Your task to perform on an android device: Open display settings Image 0: 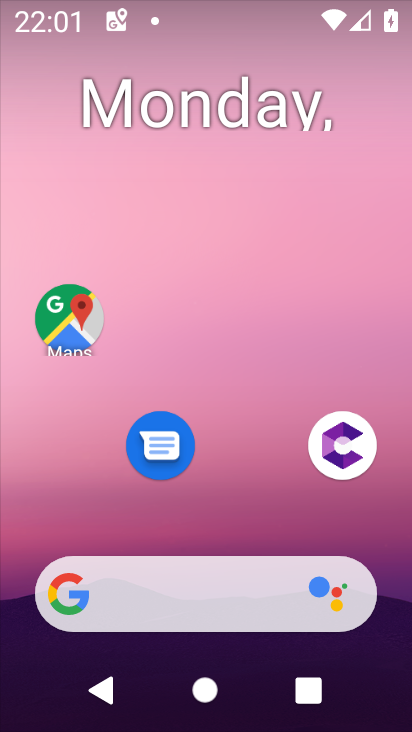
Step 0: drag from (256, 479) to (252, 79)
Your task to perform on an android device: Open display settings Image 1: 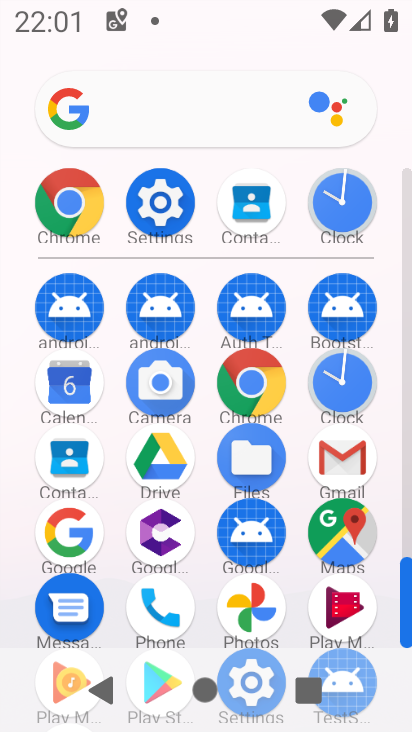
Step 1: click (156, 196)
Your task to perform on an android device: Open display settings Image 2: 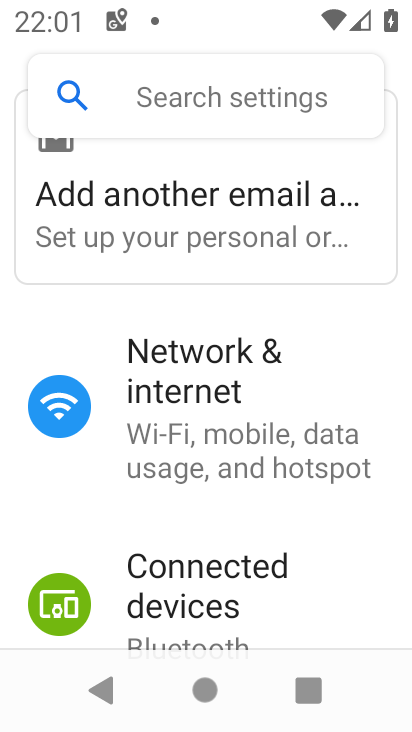
Step 2: drag from (59, 526) to (119, 43)
Your task to perform on an android device: Open display settings Image 3: 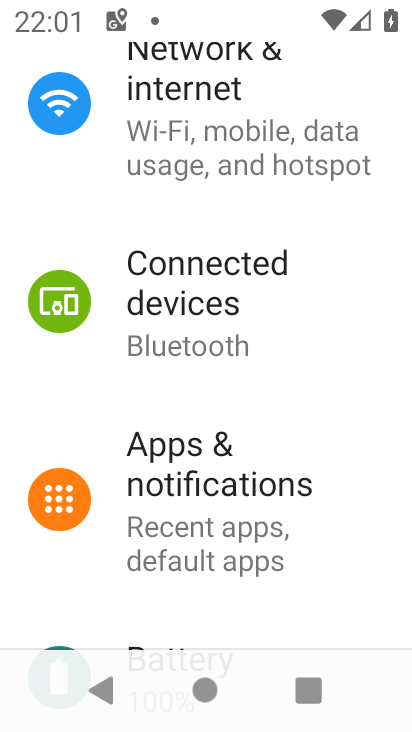
Step 3: drag from (92, 568) to (134, 163)
Your task to perform on an android device: Open display settings Image 4: 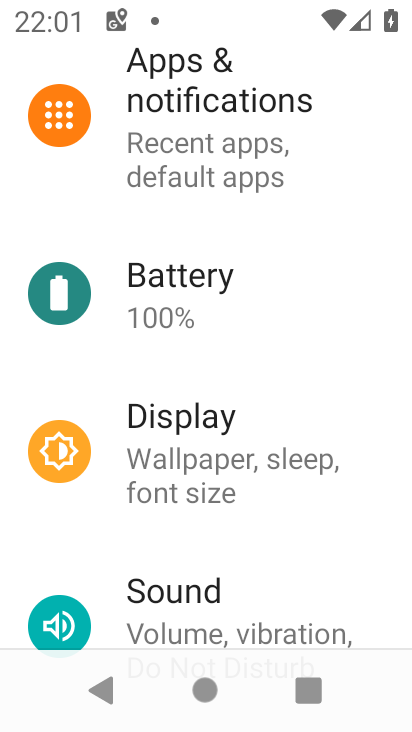
Step 4: click (159, 450)
Your task to perform on an android device: Open display settings Image 5: 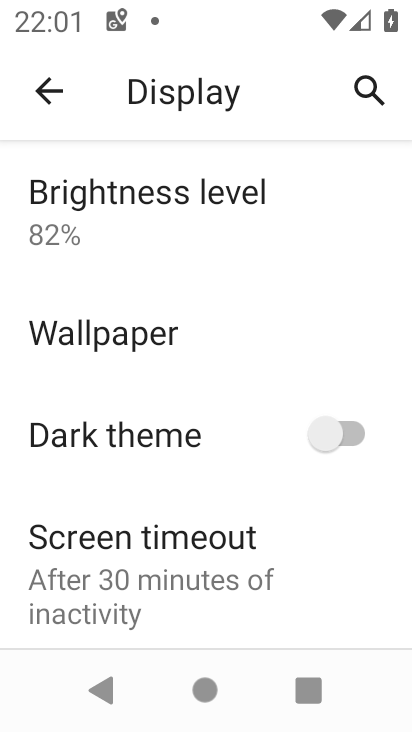
Step 5: task complete